Your task to perform on an android device: change the clock display to analog Image 0: 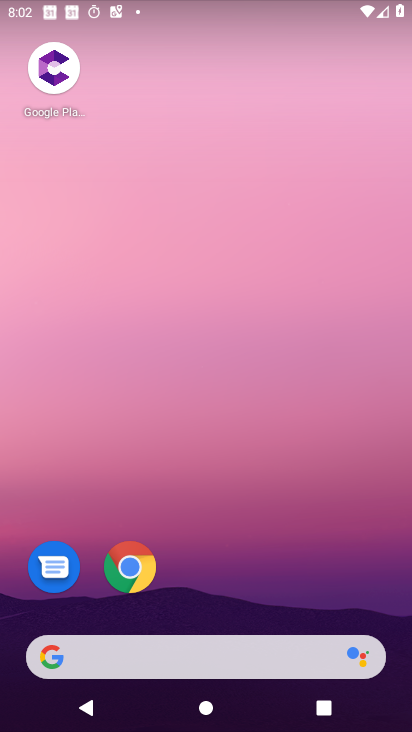
Step 0: drag from (241, 642) to (246, 219)
Your task to perform on an android device: change the clock display to analog Image 1: 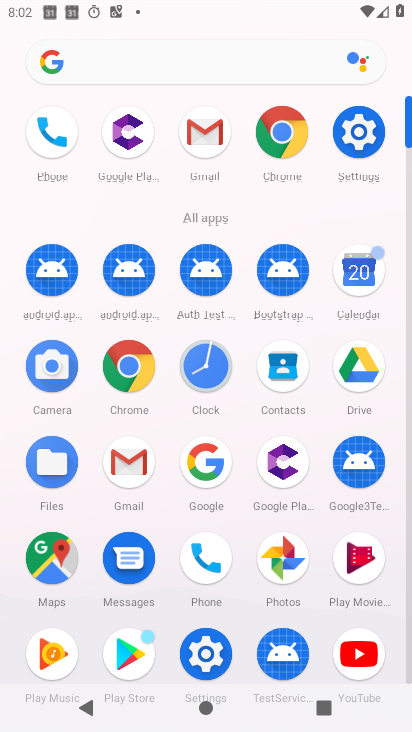
Step 1: click (213, 356)
Your task to perform on an android device: change the clock display to analog Image 2: 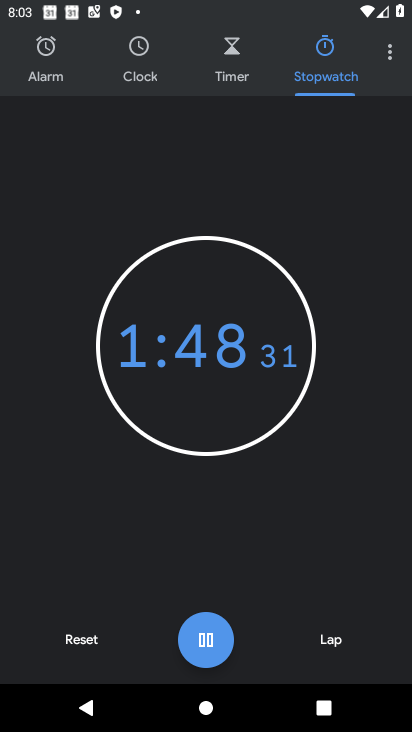
Step 2: click (384, 66)
Your task to perform on an android device: change the clock display to analog Image 3: 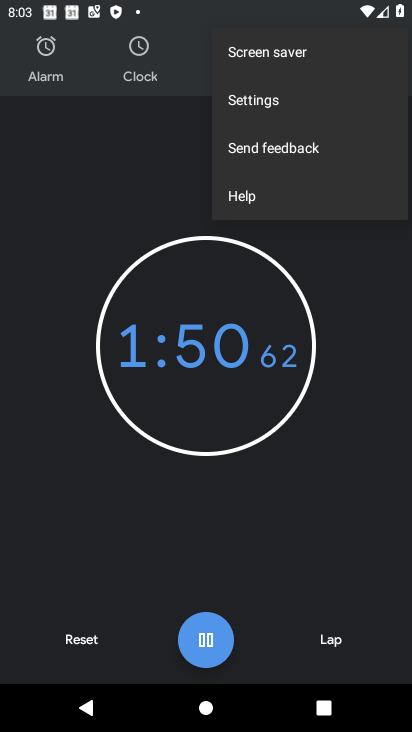
Step 3: click (288, 111)
Your task to perform on an android device: change the clock display to analog Image 4: 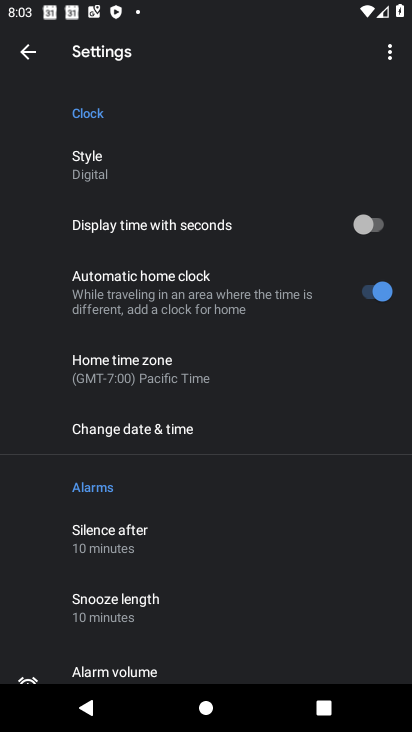
Step 4: click (137, 157)
Your task to perform on an android device: change the clock display to analog Image 5: 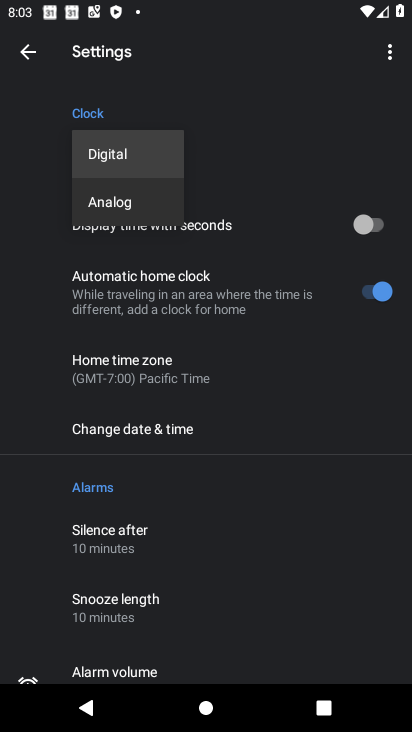
Step 5: click (127, 206)
Your task to perform on an android device: change the clock display to analog Image 6: 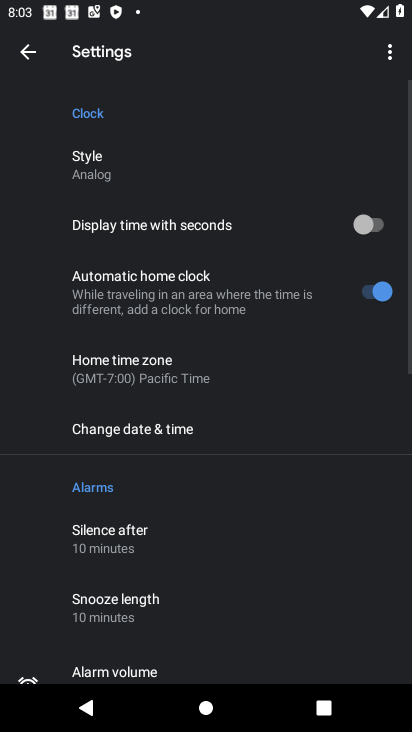
Step 6: task complete